Your task to perform on an android device: turn off location history Image 0: 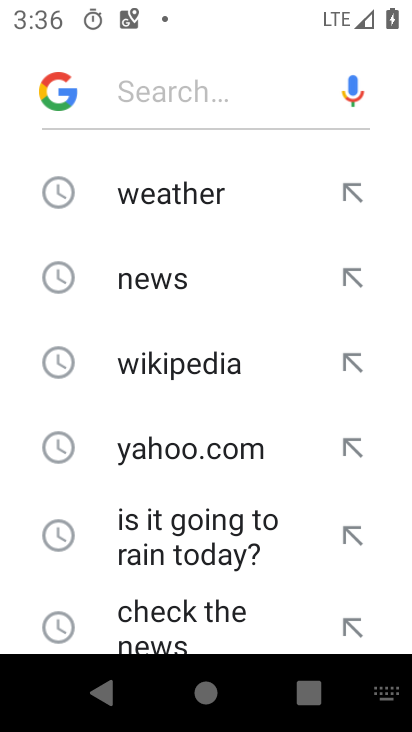
Step 0: press home button
Your task to perform on an android device: turn off location history Image 1: 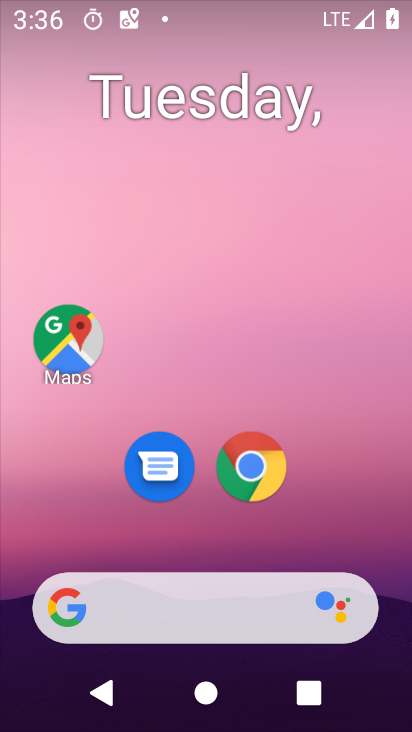
Step 1: drag from (355, 528) to (345, 122)
Your task to perform on an android device: turn off location history Image 2: 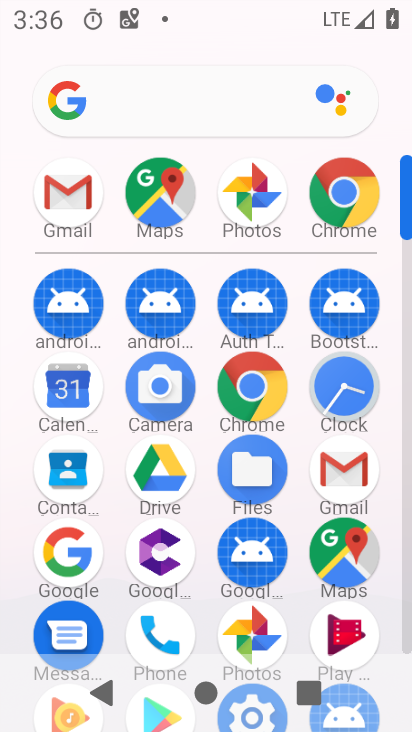
Step 2: drag from (295, 449) to (295, 197)
Your task to perform on an android device: turn off location history Image 3: 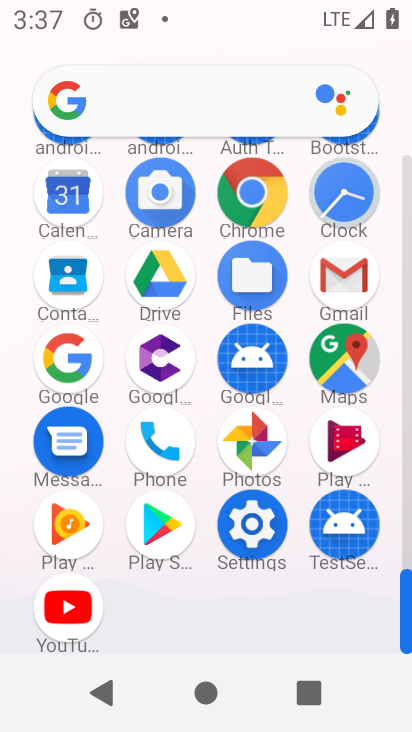
Step 3: click (243, 556)
Your task to perform on an android device: turn off location history Image 4: 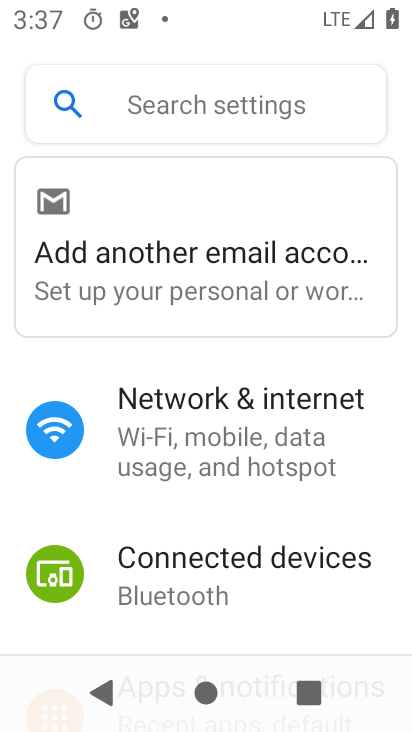
Step 4: drag from (372, 585) to (380, 410)
Your task to perform on an android device: turn off location history Image 5: 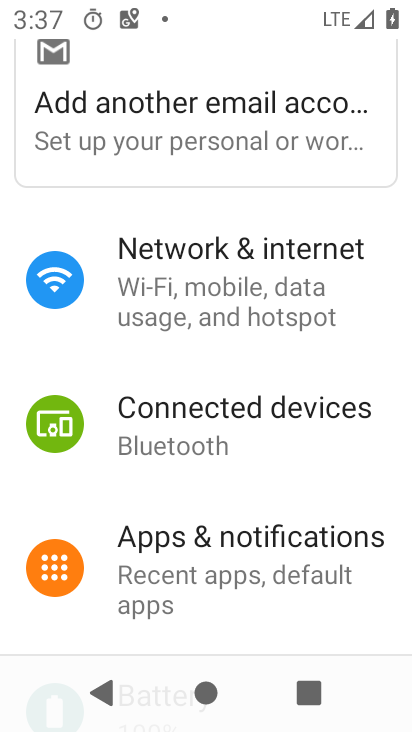
Step 5: drag from (372, 629) to (367, 496)
Your task to perform on an android device: turn off location history Image 6: 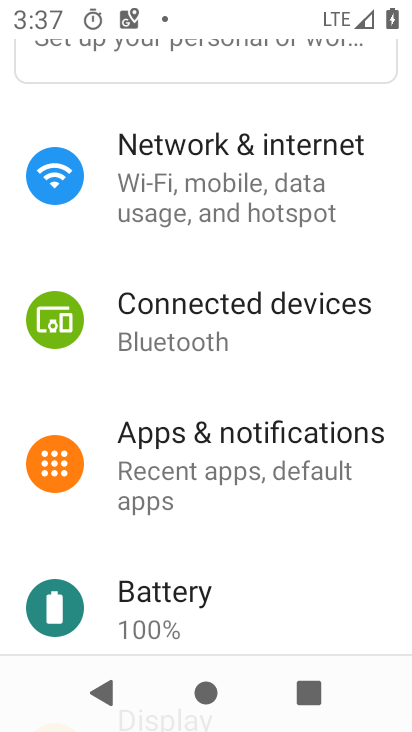
Step 6: drag from (369, 609) to (363, 449)
Your task to perform on an android device: turn off location history Image 7: 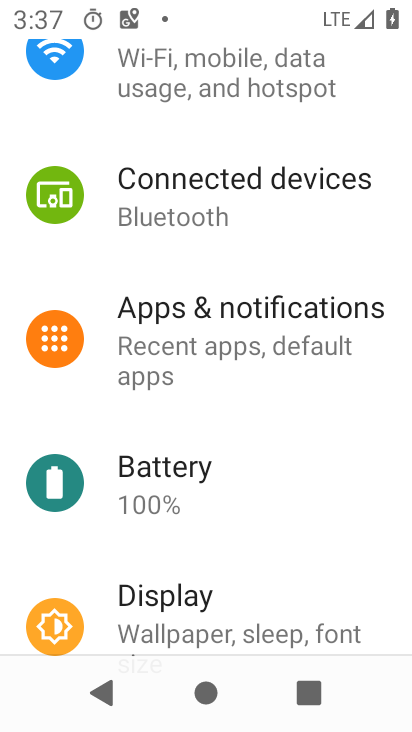
Step 7: drag from (346, 600) to (344, 416)
Your task to perform on an android device: turn off location history Image 8: 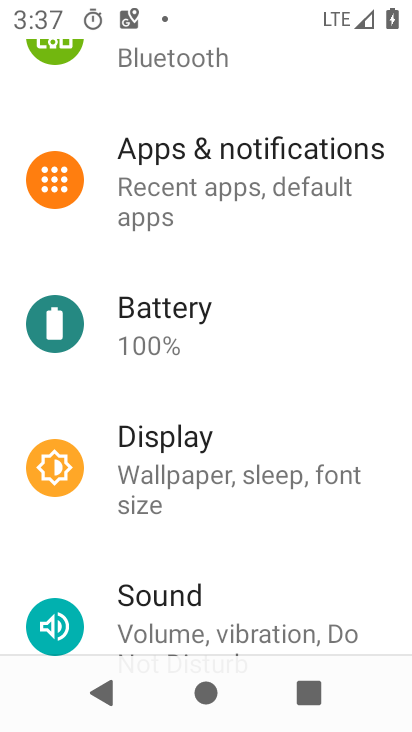
Step 8: drag from (343, 572) to (360, 386)
Your task to perform on an android device: turn off location history Image 9: 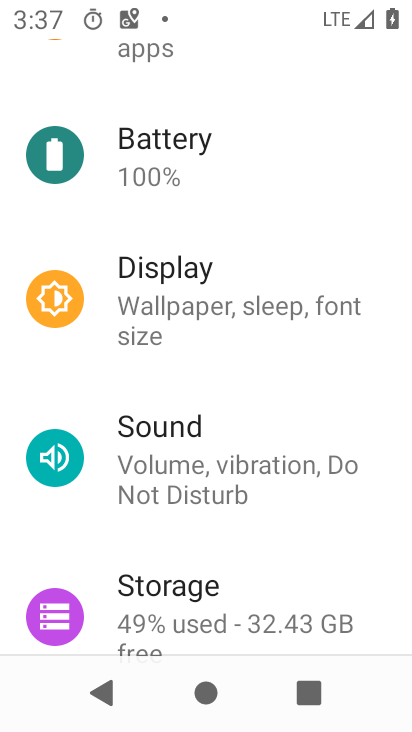
Step 9: drag from (360, 553) to (356, 361)
Your task to perform on an android device: turn off location history Image 10: 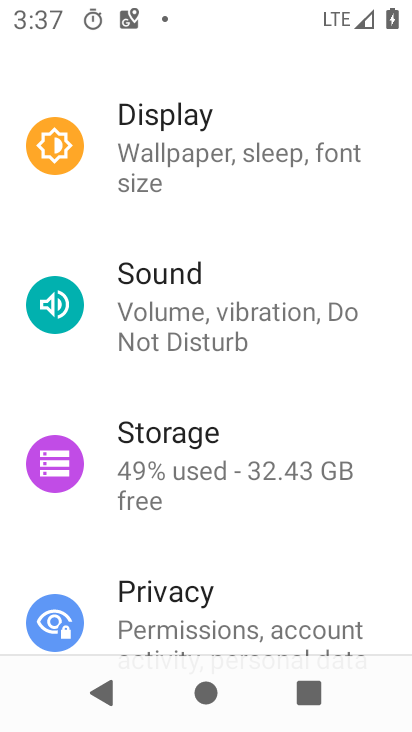
Step 10: drag from (372, 560) to (378, 389)
Your task to perform on an android device: turn off location history Image 11: 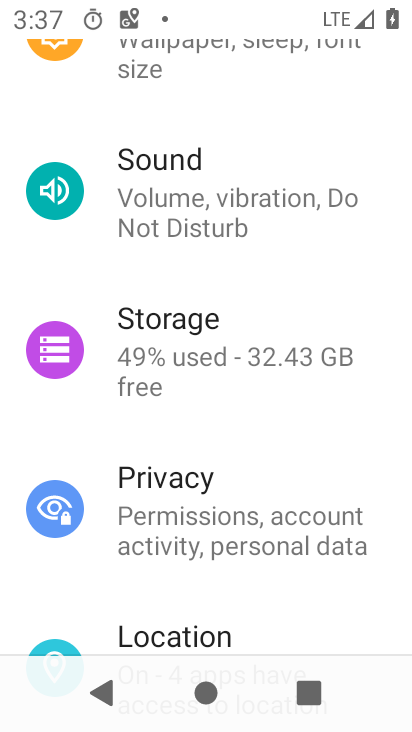
Step 11: drag from (370, 585) to (388, 374)
Your task to perform on an android device: turn off location history Image 12: 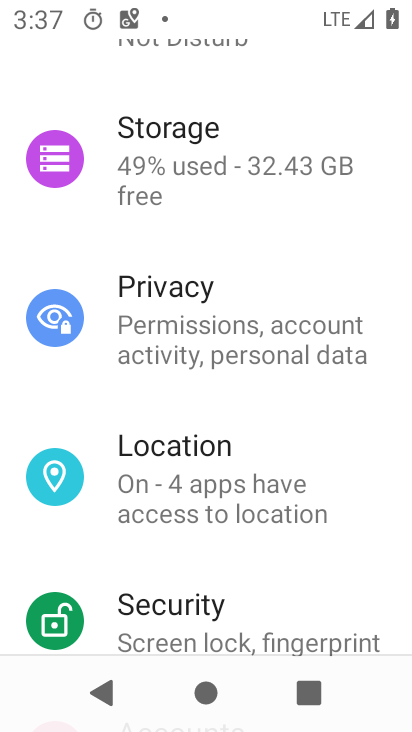
Step 12: click (328, 471)
Your task to perform on an android device: turn off location history Image 13: 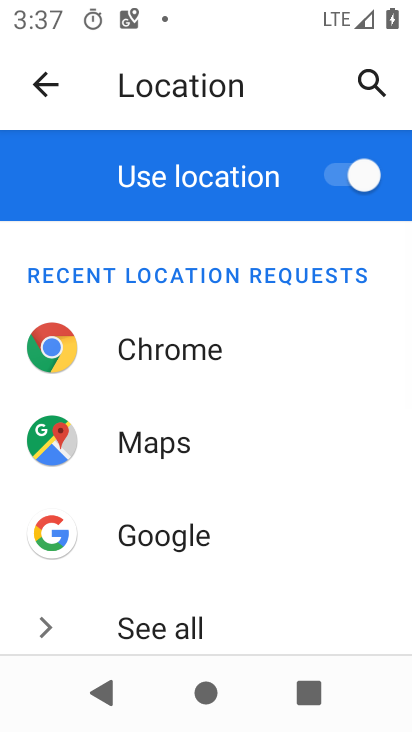
Step 13: click (365, 189)
Your task to perform on an android device: turn off location history Image 14: 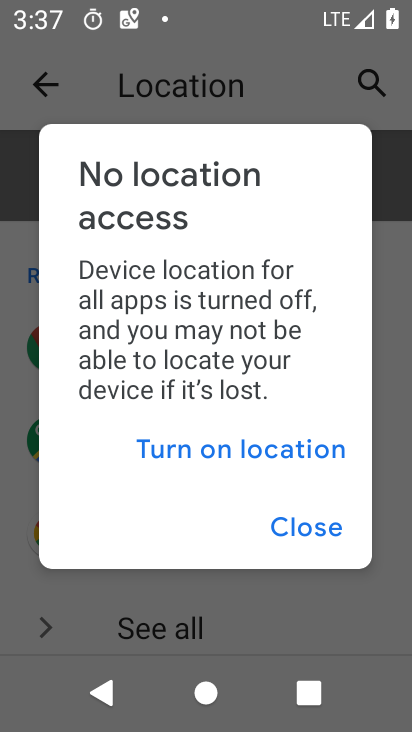
Step 14: task complete